Your task to perform on an android device: Open wifi settings Image 0: 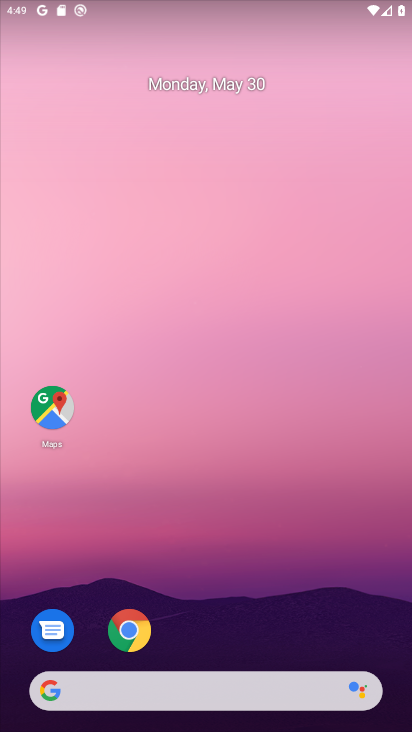
Step 0: press home button
Your task to perform on an android device: Open wifi settings Image 1: 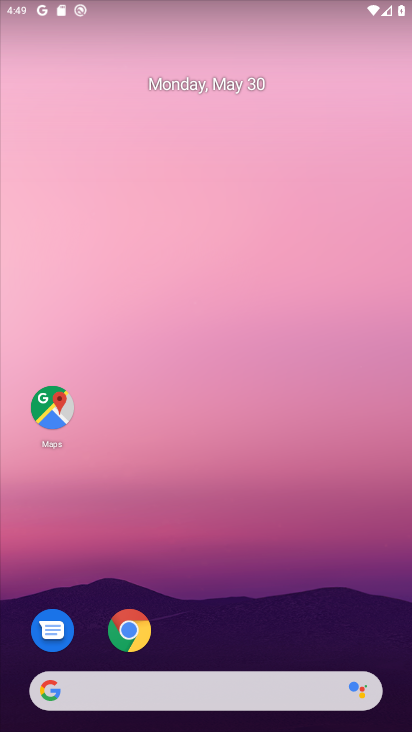
Step 1: drag from (306, 617) to (293, 4)
Your task to perform on an android device: Open wifi settings Image 2: 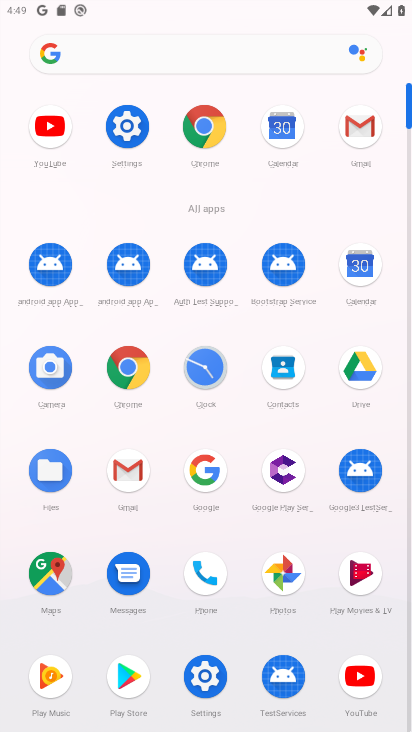
Step 2: click (125, 137)
Your task to perform on an android device: Open wifi settings Image 3: 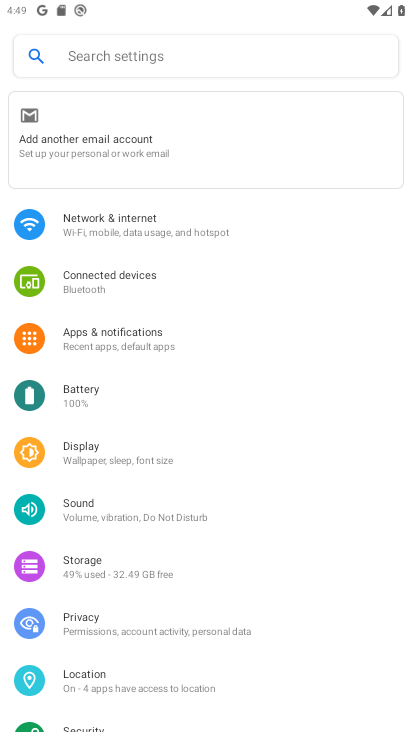
Step 3: click (125, 232)
Your task to perform on an android device: Open wifi settings Image 4: 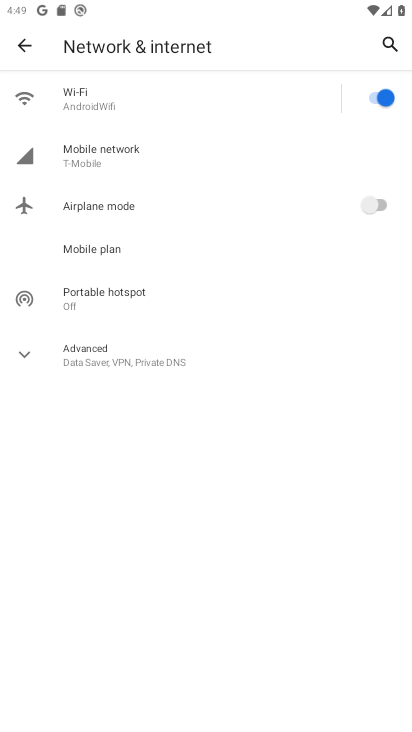
Step 4: click (77, 92)
Your task to perform on an android device: Open wifi settings Image 5: 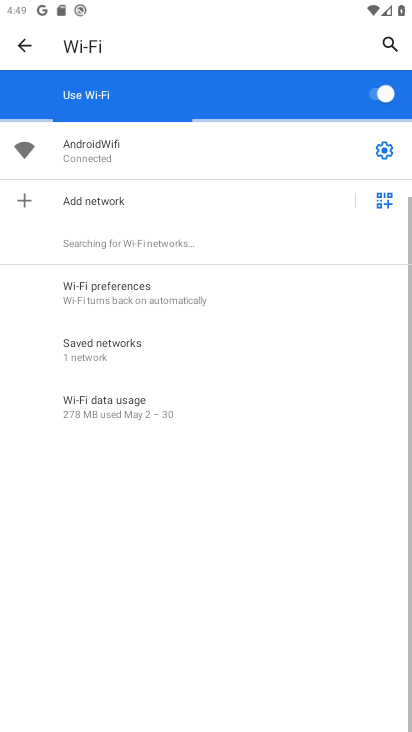
Step 5: task complete